Your task to perform on an android device: Open Youtube and go to "Your channel" Image 0: 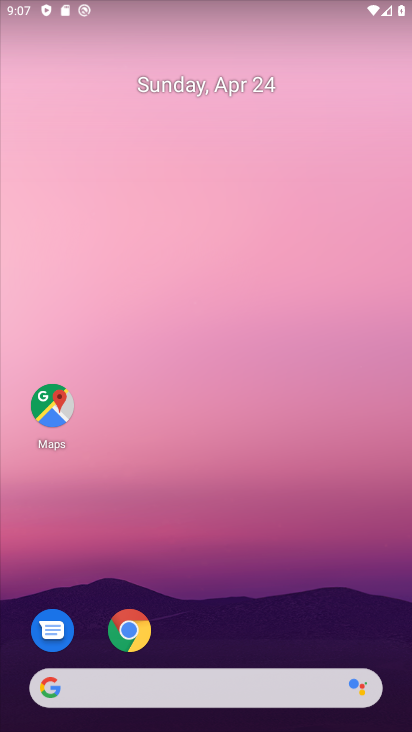
Step 0: drag from (187, 616) to (276, 82)
Your task to perform on an android device: Open Youtube and go to "Your channel" Image 1: 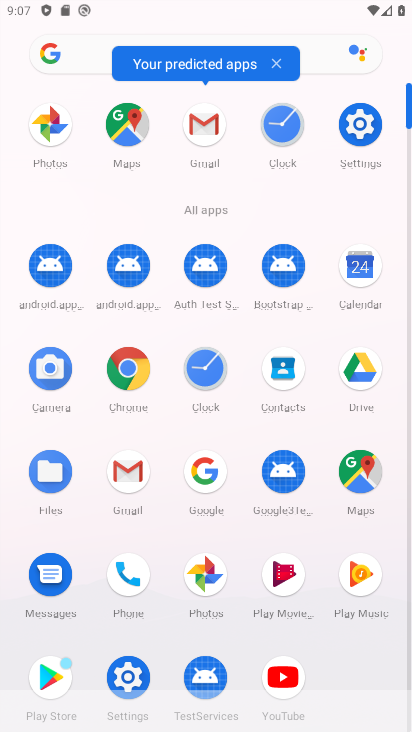
Step 1: click (285, 669)
Your task to perform on an android device: Open Youtube and go to "Your channel" Image 2: 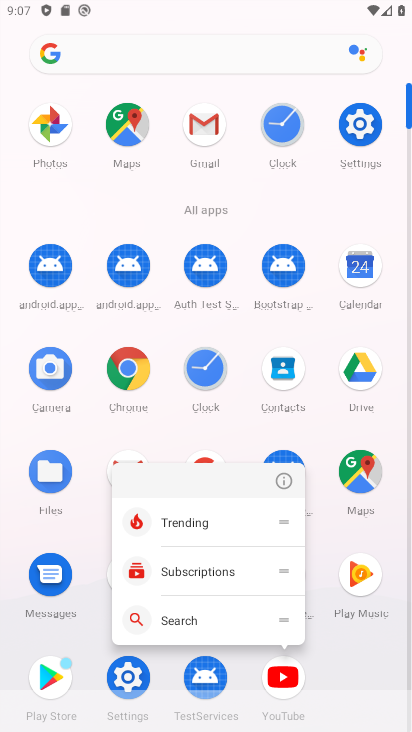
Step 2: click (280, 664)
Your task to perform on an android device: Open Youtube and go to "Your channel" Image 3: 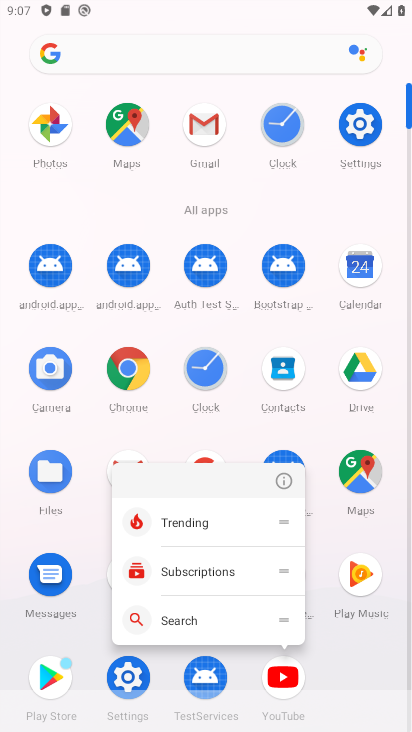
Step 3: click (293, 694)
Your task to perform on an android device: Open Youtube and go to "Your channel" Image 4: 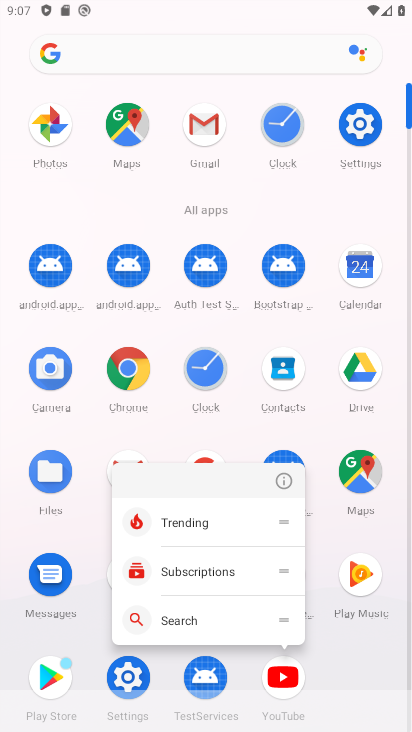
Step 4: click (275, 696)
Your task to perform on an android device: Open Youtube and go to "Your channel" Image 5: 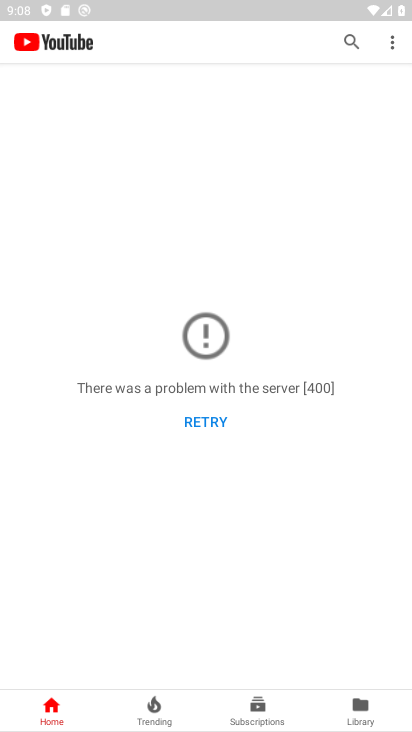
Step 5: click (361, 717)
Your task to perform on an android device: Open Youtube and go to "Your channel" Image 6: 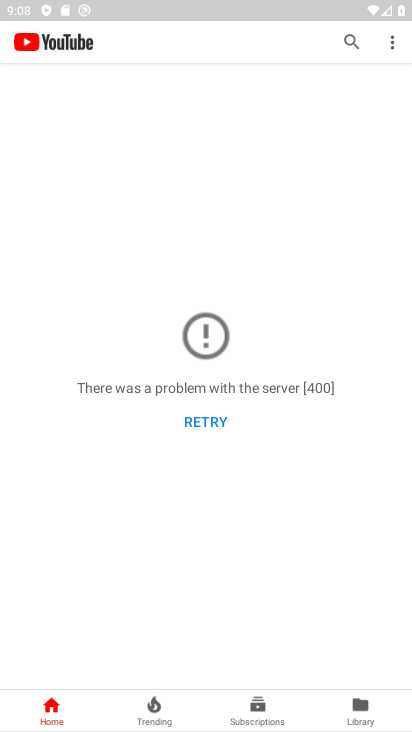
Step 6: click (361, 715)
Your task to perform on an android device: Open Youtube and go to "Your channel" Image 7: 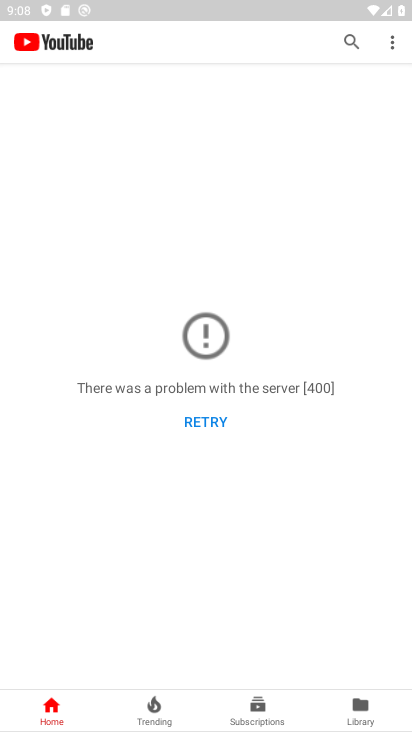
Step 7: task complete